Your task to perform on an android device: manage bookmarks in the chrome app Image 0: 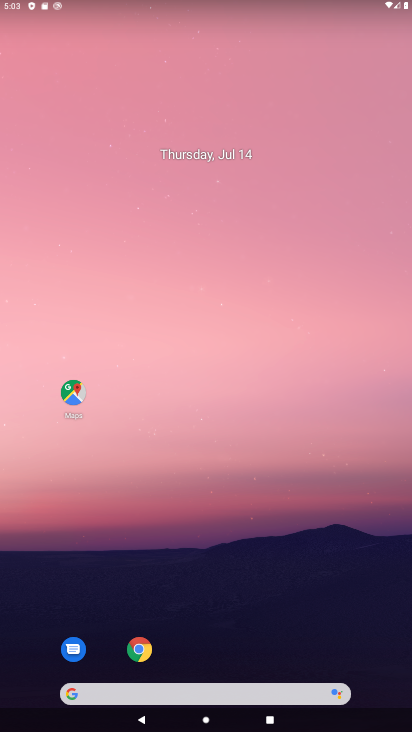
Step 0: click (138, 652)
Your task to perform on an android device: manage bookmarks in the chrome app Image 1: 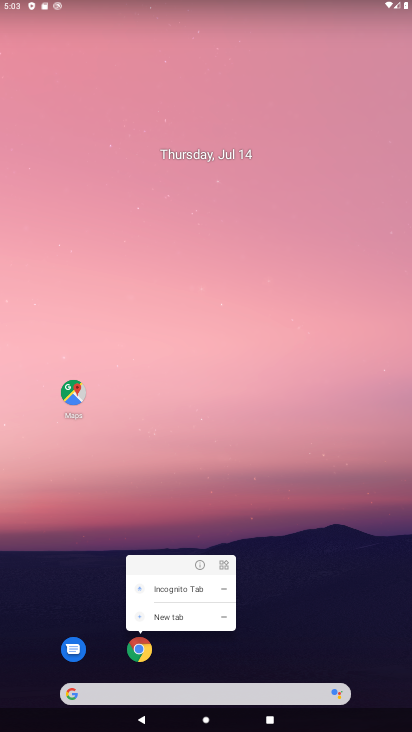
Step 1: click (138, 652)
Your task to perform on an android device: manage bookmarks in the chrome app Image 2: 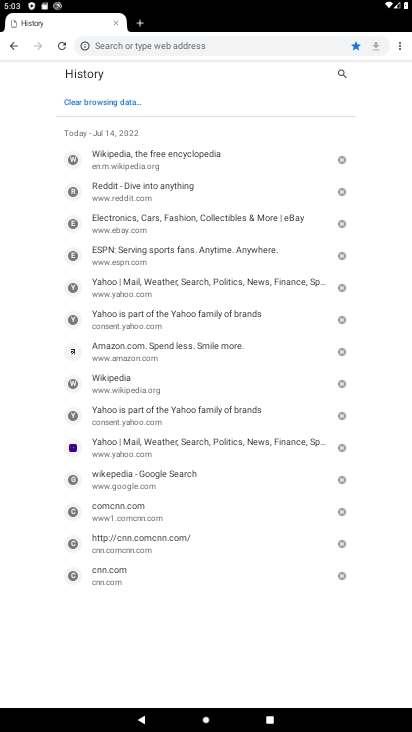
Step 2: drag from (402, 45) to (306, 93)
Your task to perform on an android device: manage bookmarks in the chrome app Image 3: 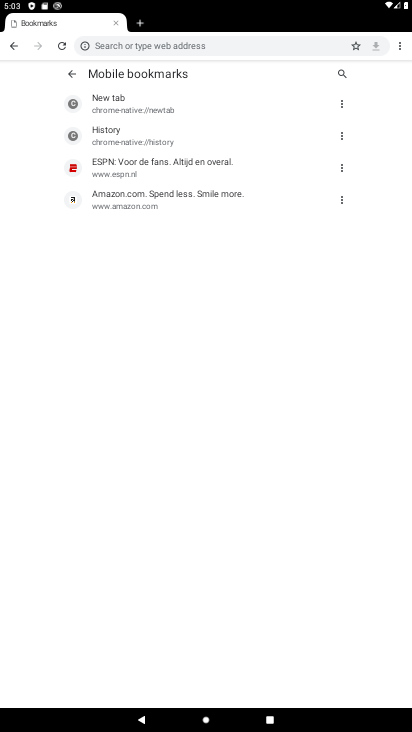
Step 3: click (341, 134)
Your task to perform on an android device: manage bookmarks in the chrome app Image 4: 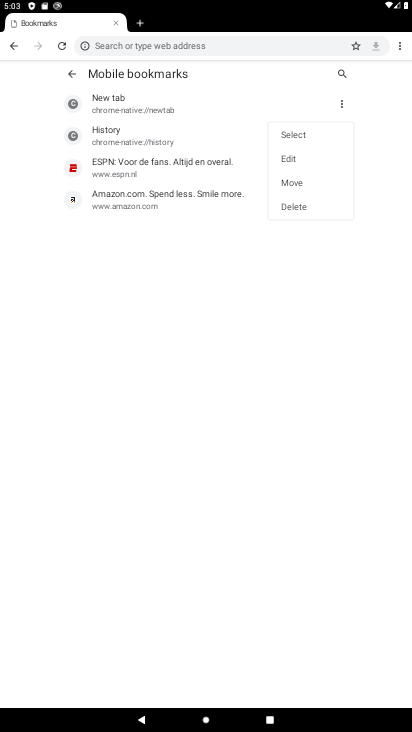
Step 4: click (304, 209)
Your task to perform on an android device: manage bookmarks in the chrome app Image 5: 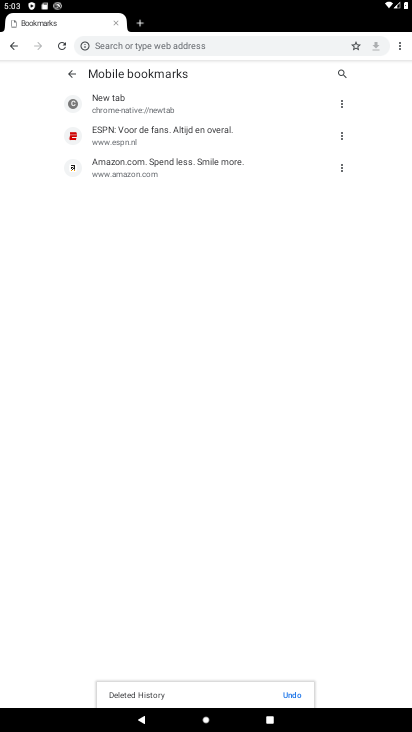
Step 5: task complete